Your task to perform on an android device: Search for Mexican restaurants on Maps Image 0: 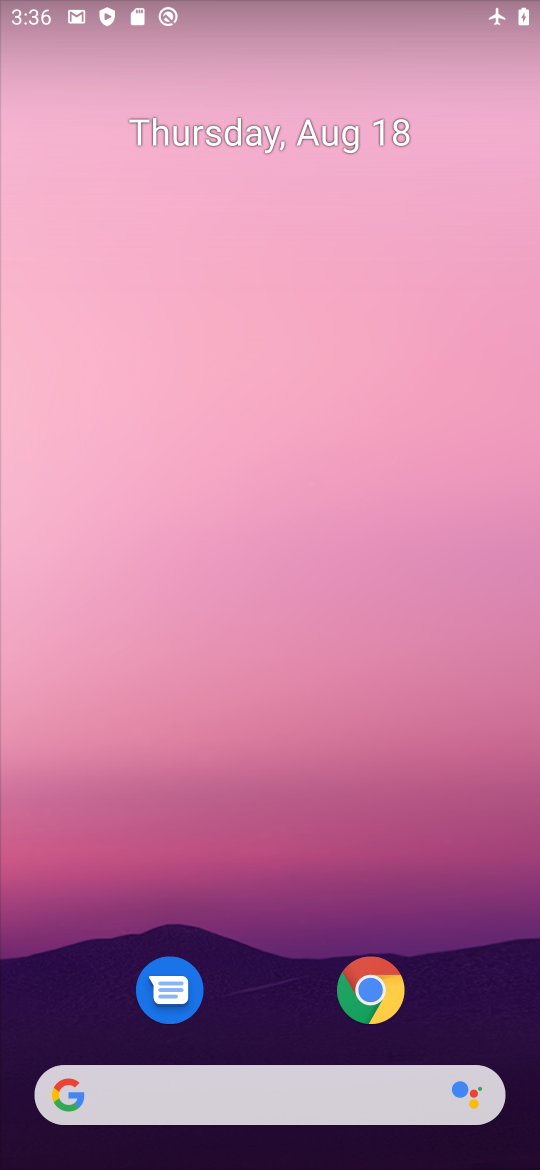
Step 0: drag from (279, 847) to (362, 70)
Your task to perform on an android device: Search for Mexican restaurants on Maps Image 1: 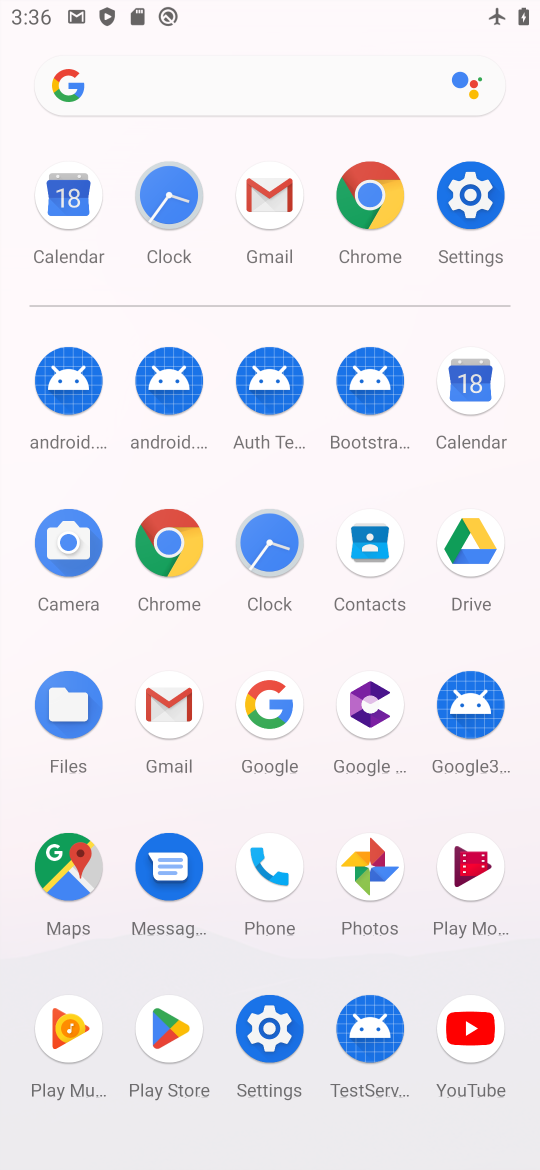
Step 1: click (75, 855)
Your task to perform on an android device: Search for Mexican restaurants on Maps Image 2: 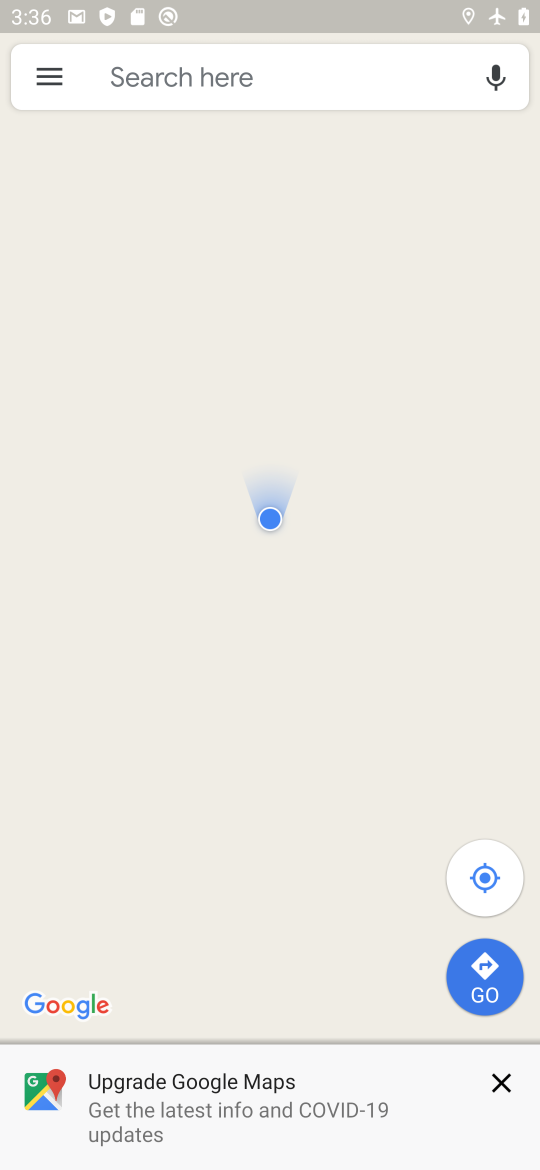
Step 2: click (287, 65)
Your task to perform on an android device: Search for Mexican restaurants on Maps Image 3: 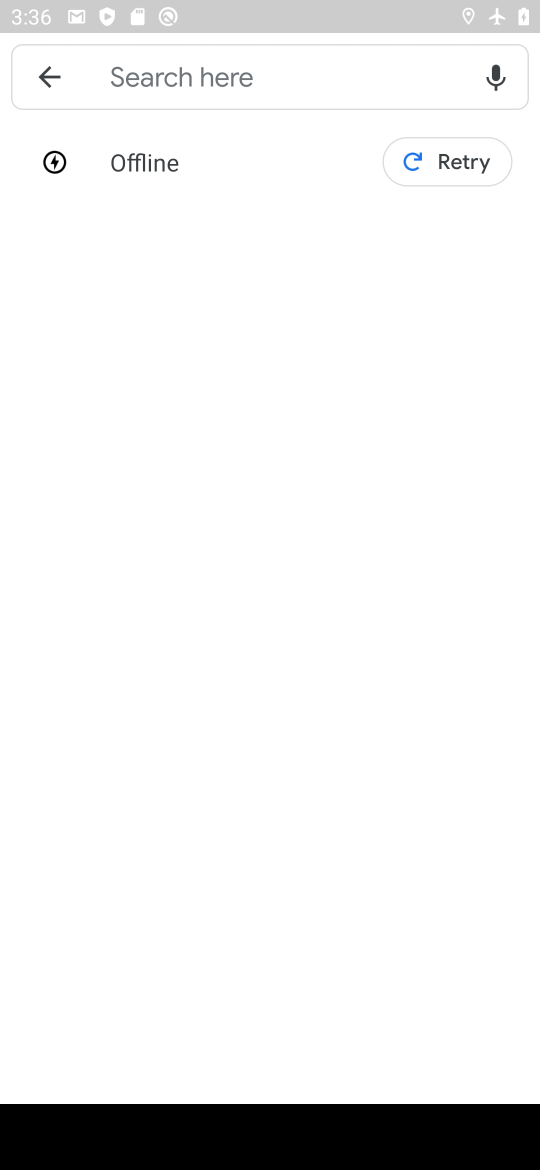
Step 3: type "Mexican restaurants"
Your task to perform on an android device: Search for Mexican restaurants on Maps Image 4: 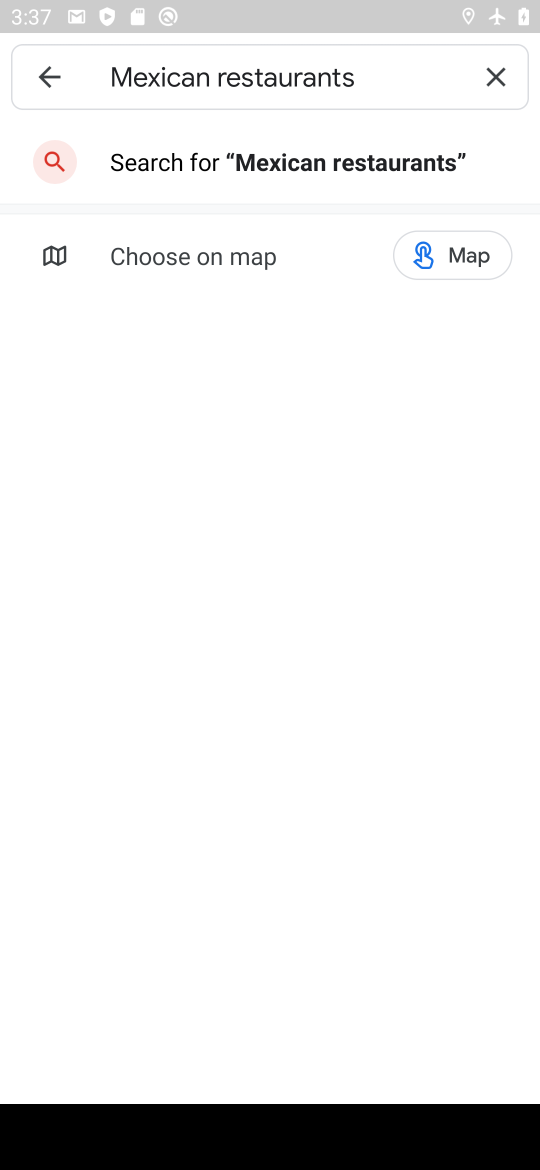
Step 4: press enter
Your task to perform on an android device: Search for Mexican restaurants on Maps Image 5: 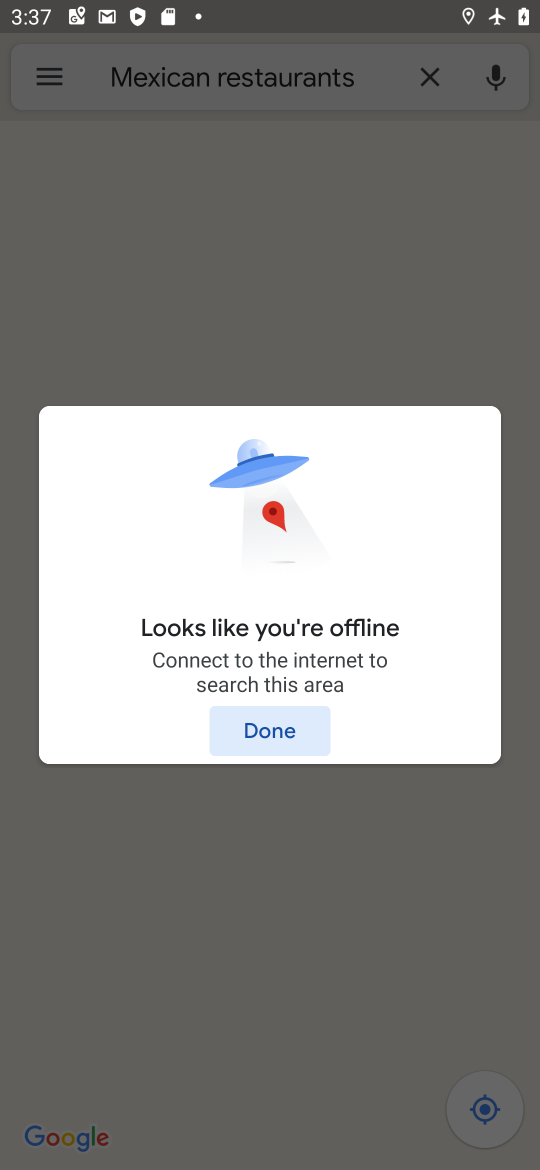
Step 5: click (275, 718)
Your task to perform on an android device: Search for Mexican restaurants on Maps Image 6: 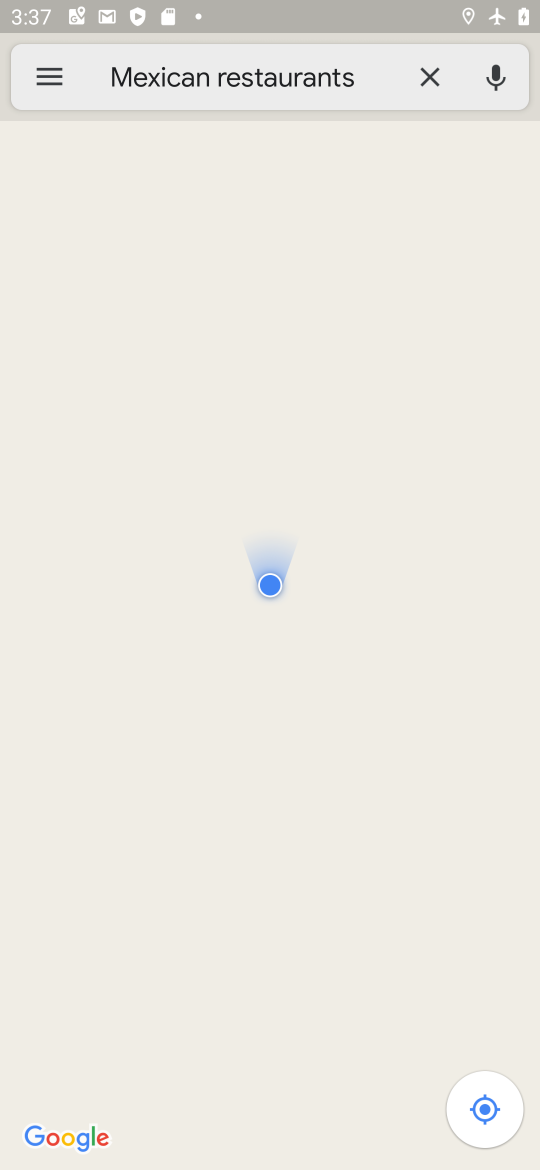
Step 6: task complete